Your task to perform on an android device: open the mobile data screen to see how much data has been used Image 0: 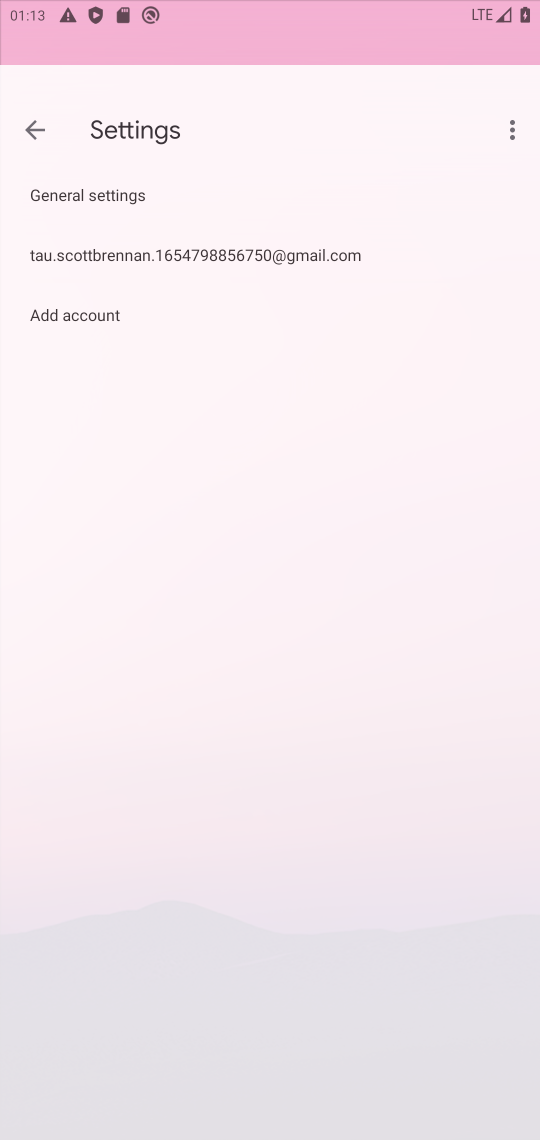
Step 0: press home button
Your task to perform on an android device: open the mobile data screen to see how much data has been used Image 1: 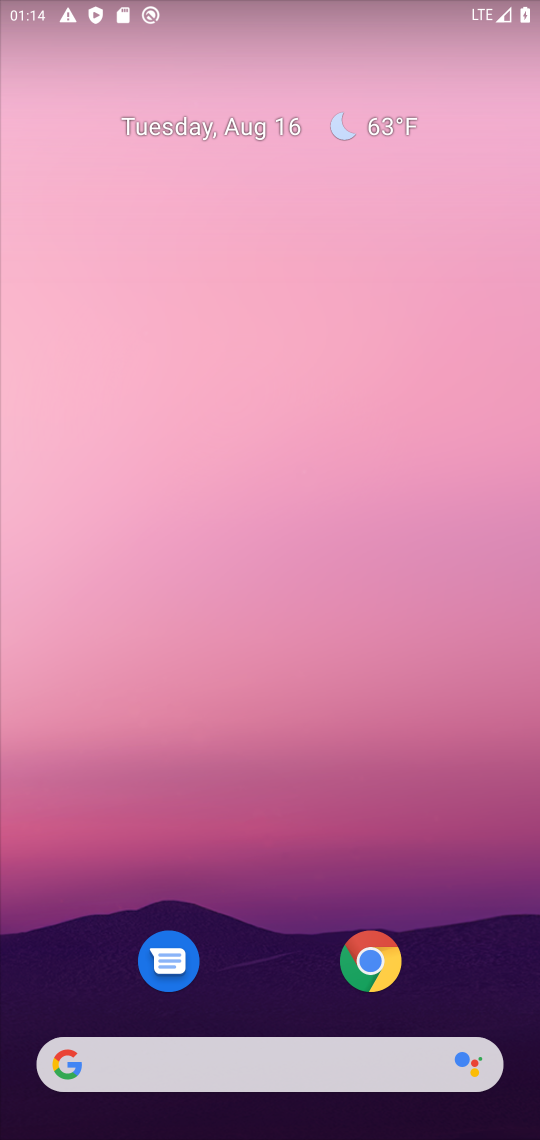
Step 1: drag from (353, 5) to (1, 267)
Your task to perform on an android device: open the mobile data screen to see how much data has been used Image 2: 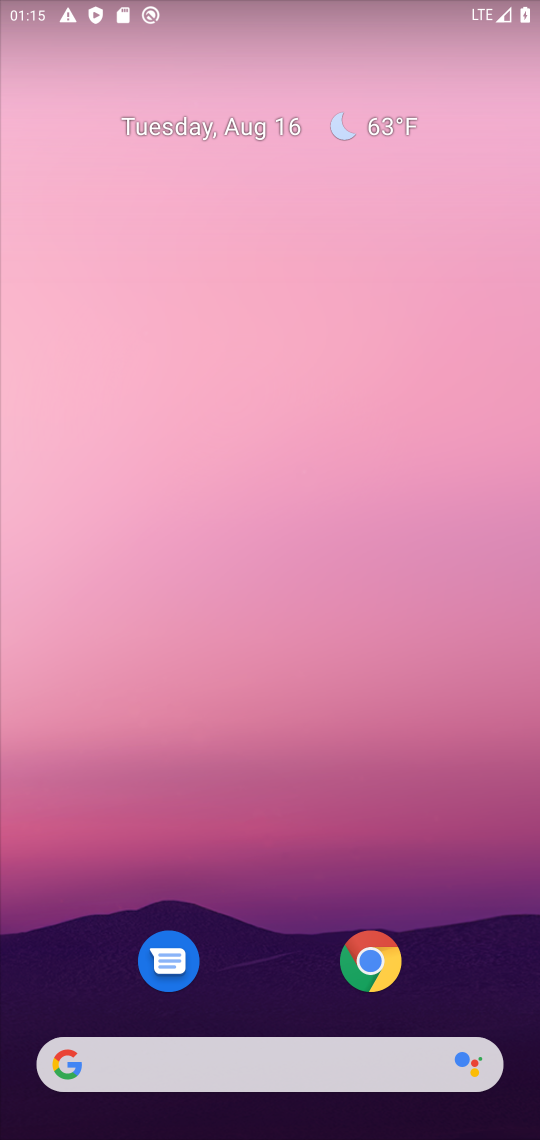
Step 2: drag from (284, 1) to (383, 1118)
Your task to perform on an android device: open the mobile data screen to see how much data has been used Image 3: 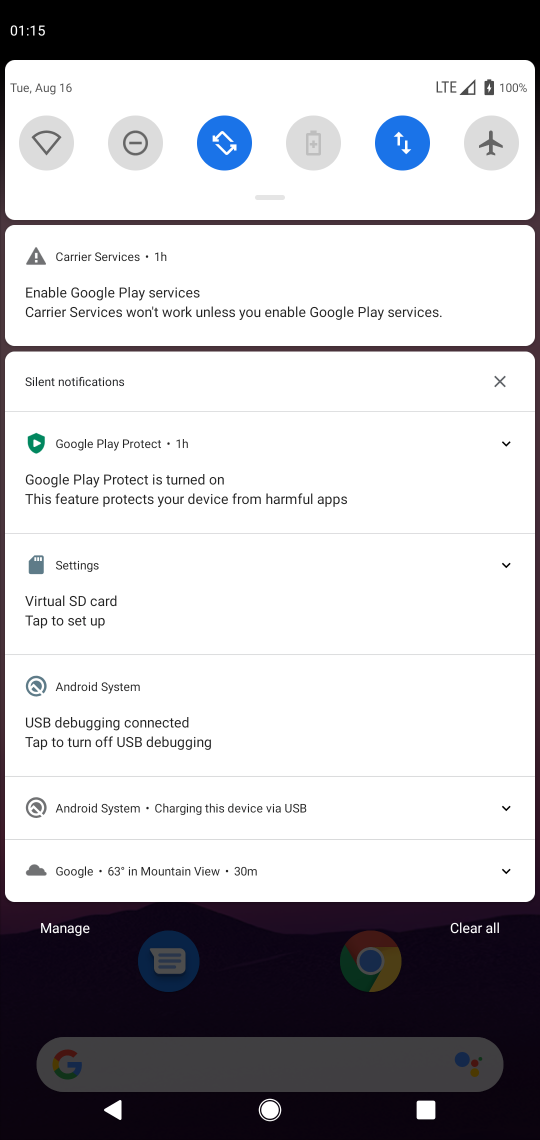
Step 3: click (398, 162)
Your task to perform on an android device: open the mobile data screen to see how much data has been used Image 4: 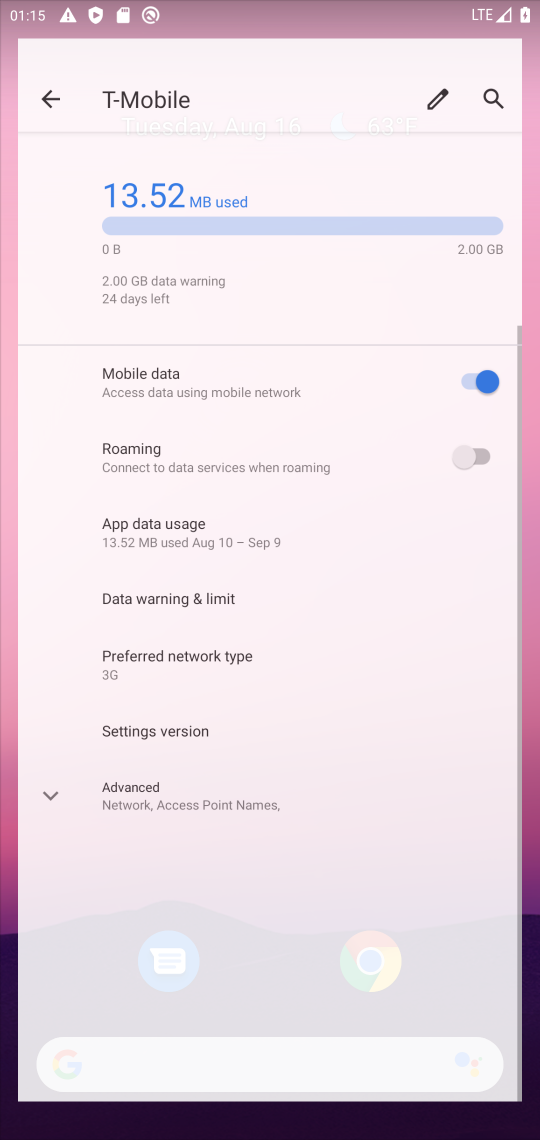
Step 4: task complete